Your task to perform on an android device: Open Youtube and go to "Your channel" Image 0: 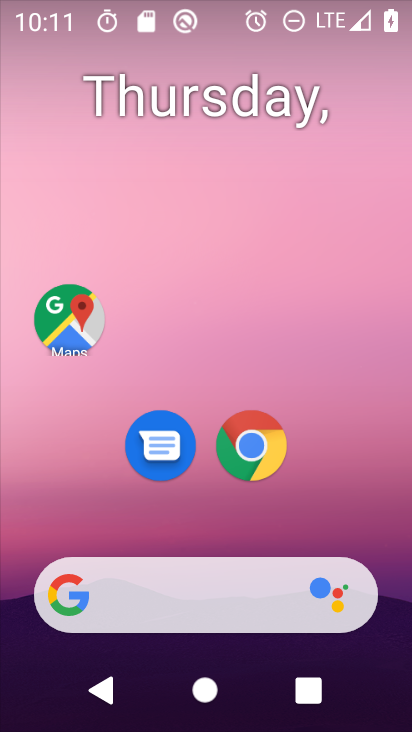
Step 0: drag from (202, 533) to (136, 58)
Your task to perform on an android device: Open Youtube and go to "Your channel" Image 1: 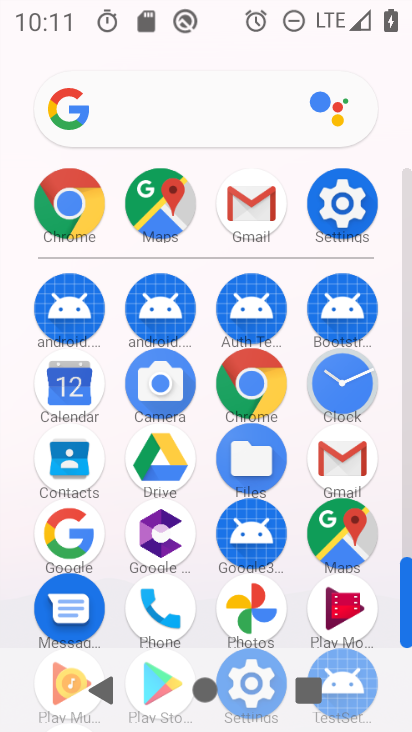
Step 1: drag from (212, 642) to (200, 442)
Your task to perform on an android device: Open Youtube and go to "Your channel" Image 2: 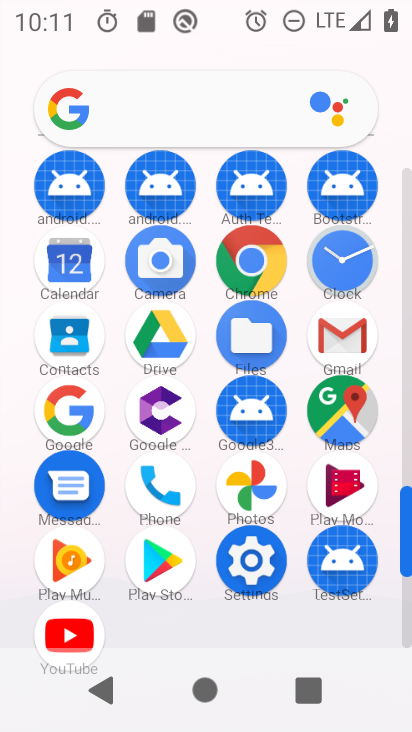
Step 2: click (66, 637)
Your task to perform on an android device: Open Youtube and go to "Your channel" Image 3: 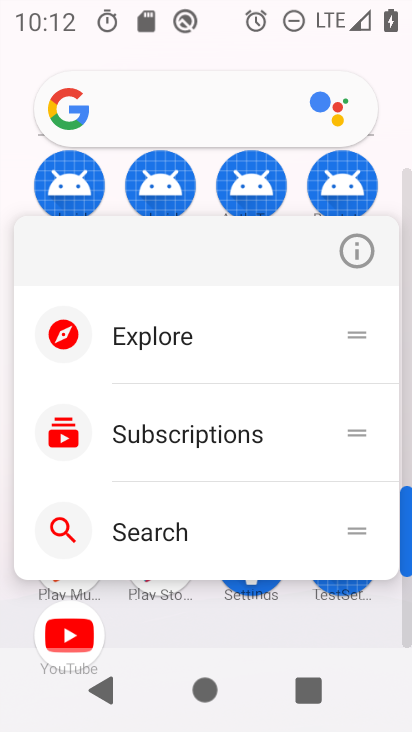
Step 3: click (354, 262)
Your task to perform on an android device: Open Youtube and go to "Your channel" Image 4: 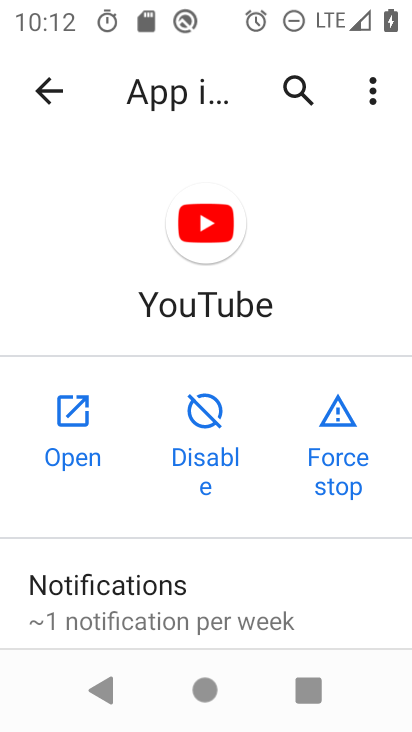
Step 4: click (62, 427)
Your task to perform on an android device: Open Youtube and go to "Your channel" Image 5: 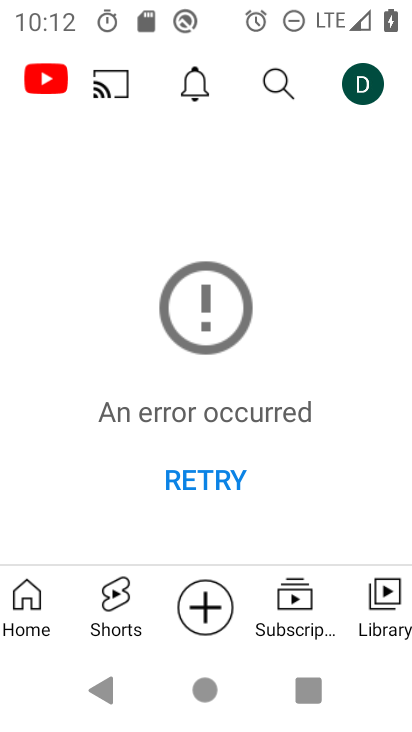
Step 5: click (366, 602)
Your task to perform on an android device: Open Youtube and go to "Your channel" Image 6: 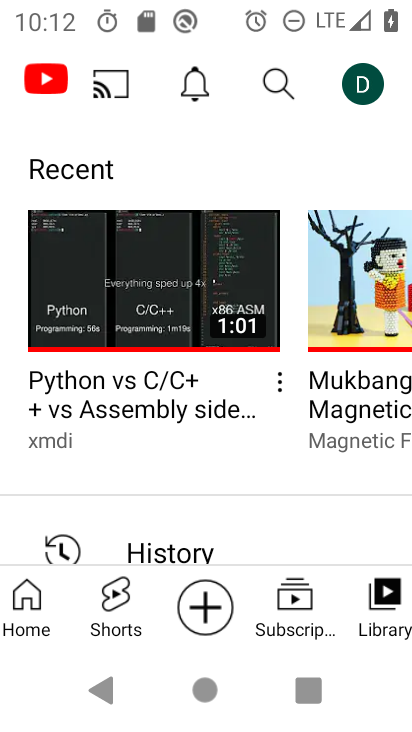
Step 6: drag from (359, 411) to (50, 425)
Your task to perform on an android device: Open Youtube and go to "Your channel" Image 7: 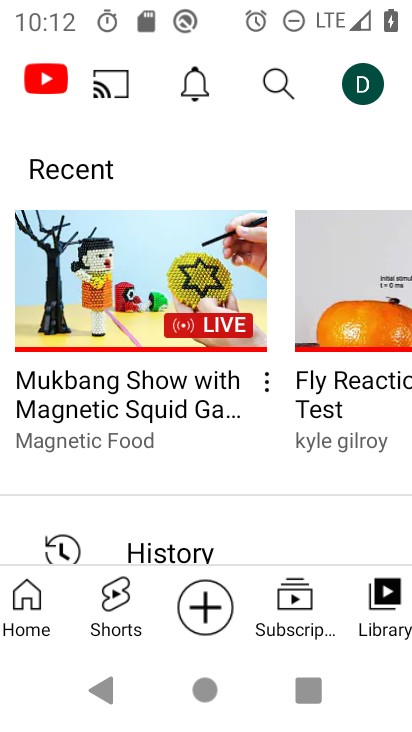
Step 7: drag from (117, 398) to (407, 330)
Your task to perform on an android device: Open Youtube and go to "Your channel" Image 8: 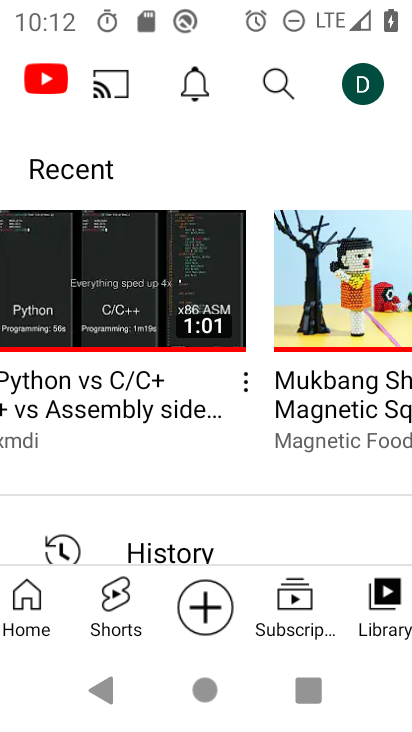
Step 8: drag from (139, 527) to (233, 83)
Your task to perform on an android device: Open Youtube and go to "Your channel" Image 9: 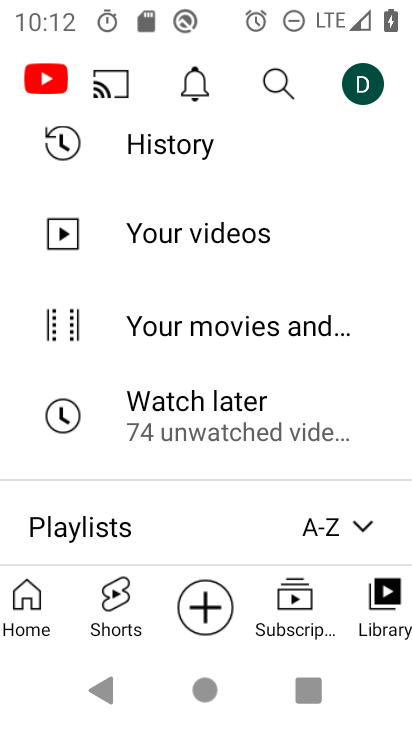
Step 9: drag from (168, 180) to (310, 638)
Your task to perform on an android device: Open Youtube and go to "Your channel" Image 10: 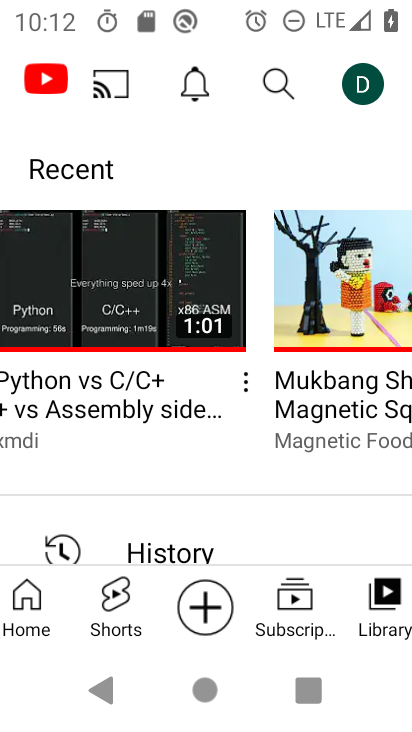
Step 10: drag from (76, 332) to (361, 358)
Your task to perform on an android device: Open Youtube and go to "Your channel" Image 11: 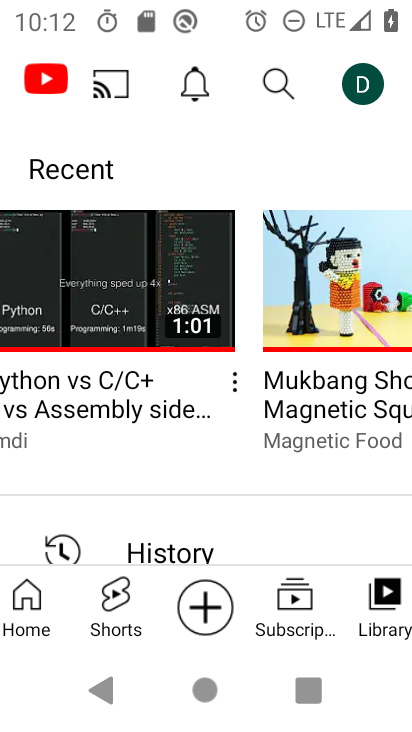
Step 11: click (369, 86)
Your task to perform on an android device: Open Youtube and go to "Your channel" Image 12: 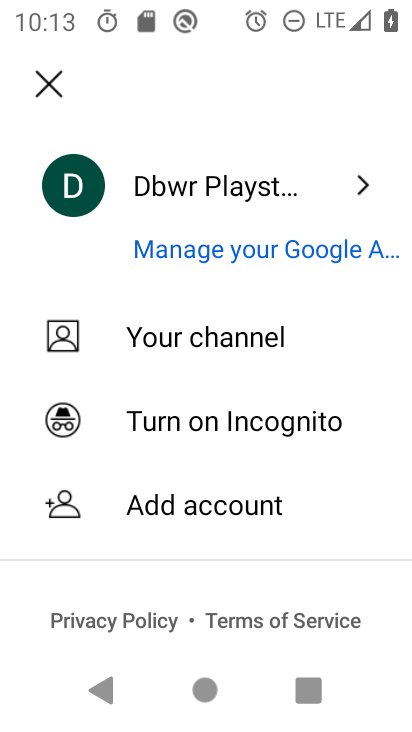
Step 12: click (142, 185)
Your task to perform on an android device: Open Youtube and go to "Your channel" Image 13: 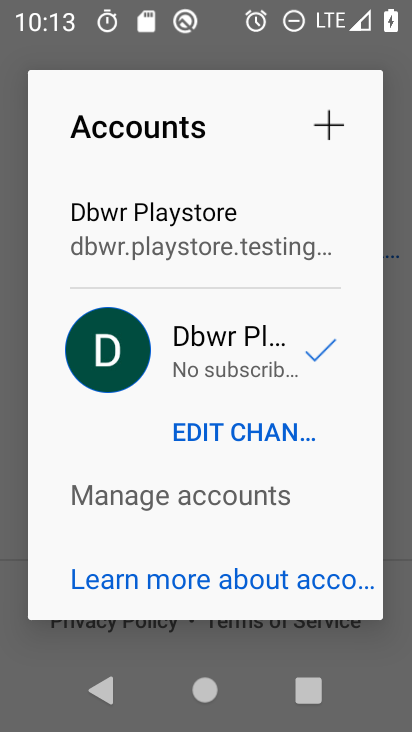
Step 13: task complete